Your task to perform on an android device: empty trash in the gmail app Image 0: 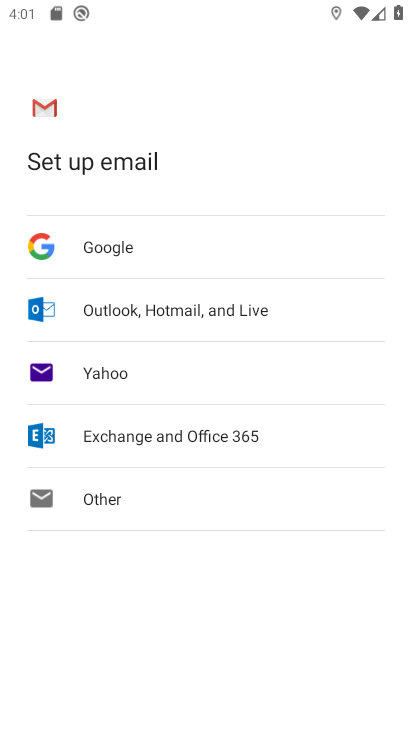
Step 0: press home button
Your task to perform on an android device: empty trash in the gmail app Image 1: 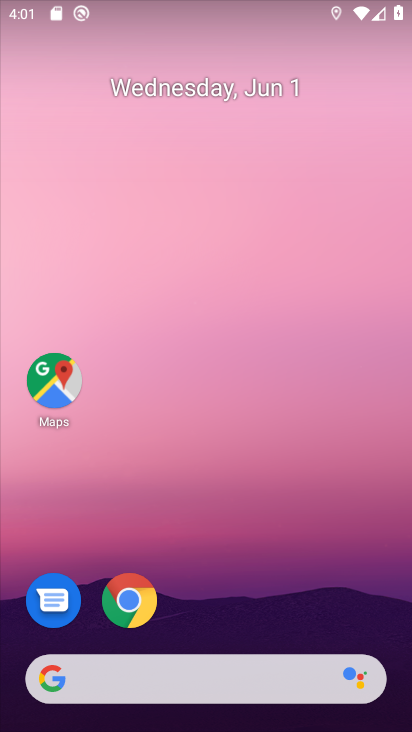
Step 1: drag from (128, 670) to (211, 358)
Your task to perform on an android device: empty trash in the gmail app Image 2: 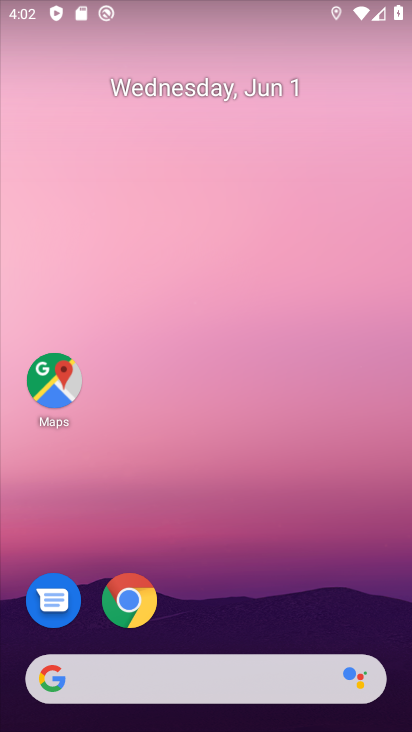
Step 2: drag from (155, 672) to (250, 136)
Your task to perform on an android device: empty trash in the gmail app Image 3: 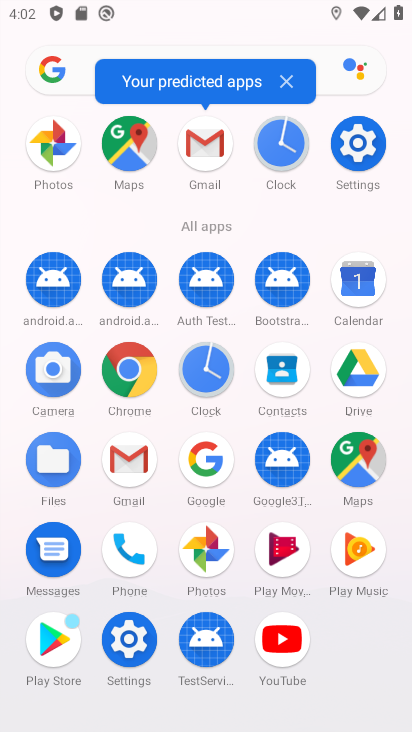
Step 3: click (124, 454)
Your task to perform on an android device: empty trash in the gmail app Image 4: 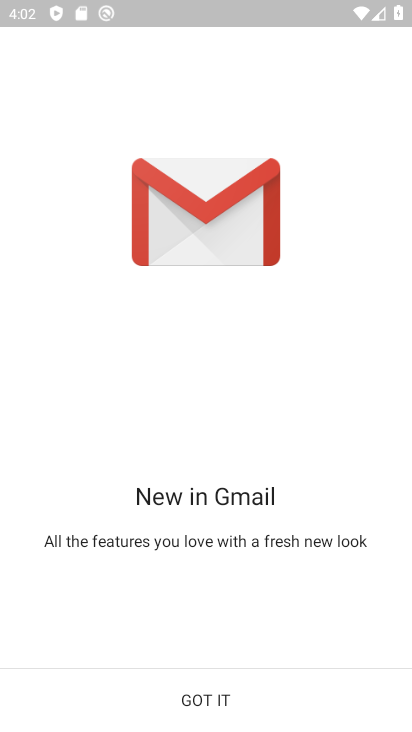
Step 4: click (216, 700)
Your task to perform on an android device: empty trash in the gmail app Image 5: 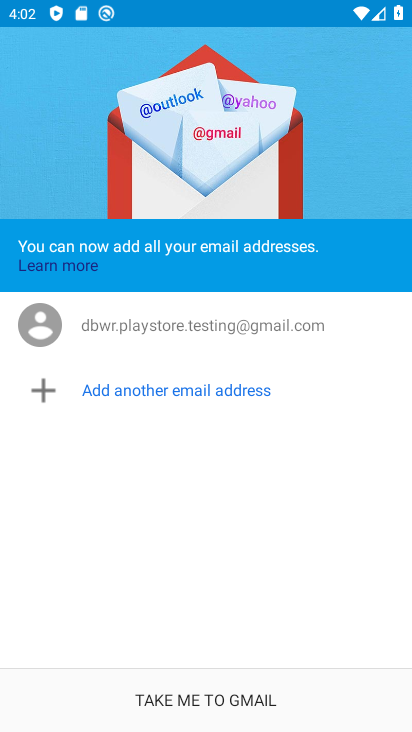
Step 5: click (217, 702)
Your task to perform on an android device: empty trash in the gmail app Image 6: 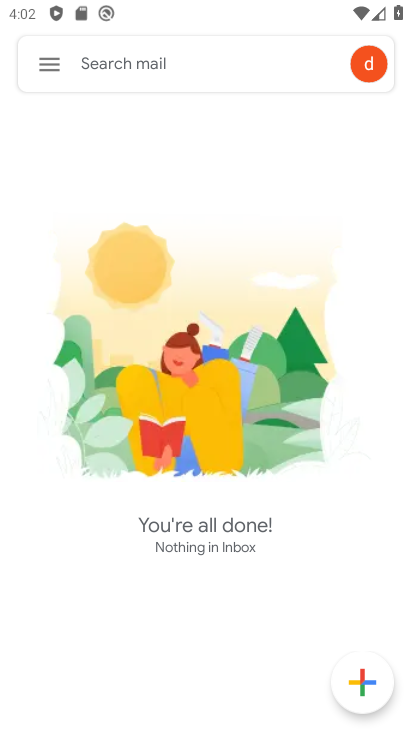
Step 6: click (67, 65)
Your task to perform on an android device: empty trash in the gmail app Image 7: 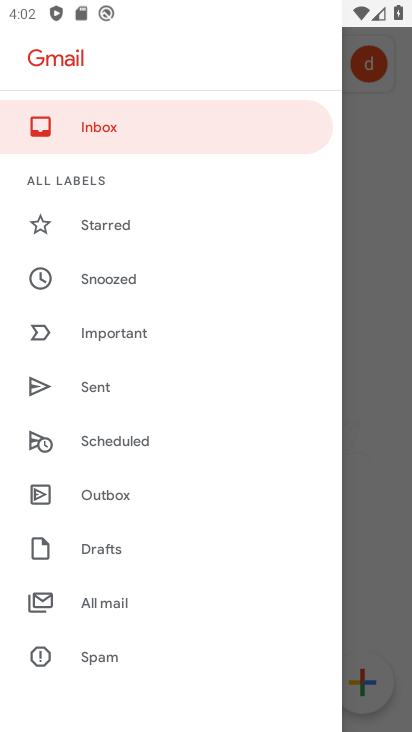
Step 7: drag from (144, 219) to (201, 212)
Your task to perform on an android device: empty trash in the gmail app Image 8: 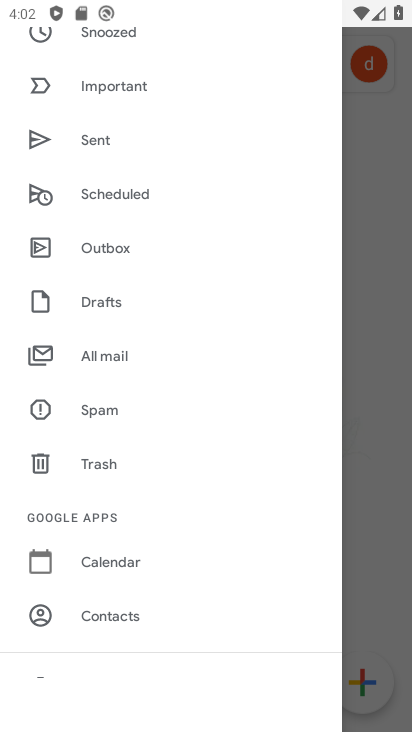
Step 8: click (118, 465)
Your task to perform on an android device: empty trash in the gmail app Image 9: 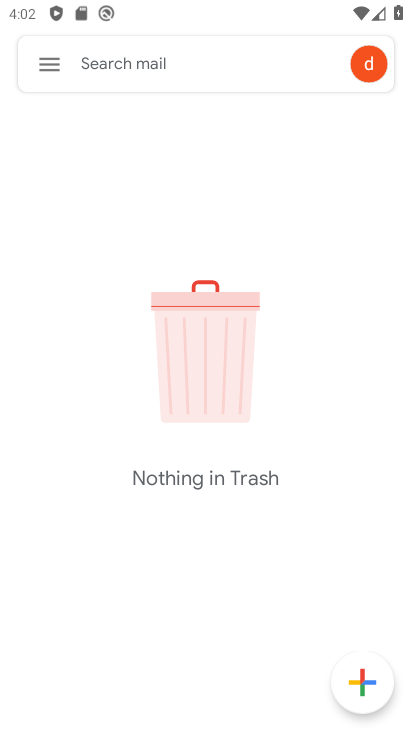
Step 9: task complete